Your task to perform on an android device: toggle improve location accuracy Image 0: 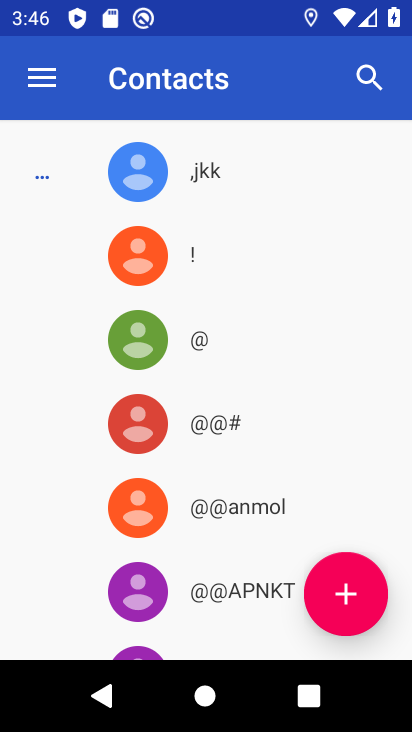
Step 0: press back button
Your task to perform on an android device: toggle improve location accuracy Image 1: 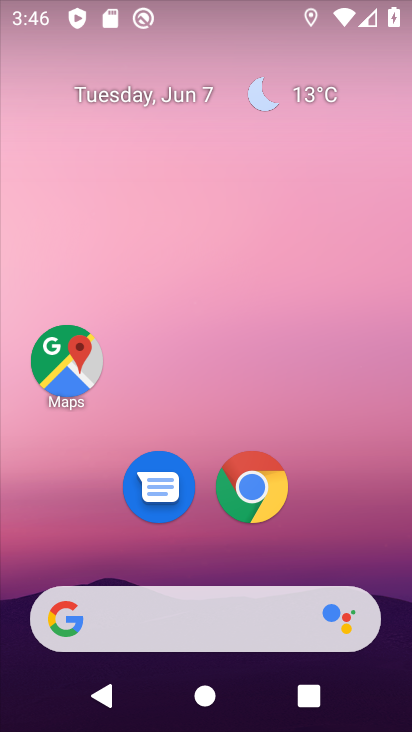
Step 1: drag from (223, 578) to (300, 88)
Your task to perform on an android device: toggle improve location accuracy Image 2: 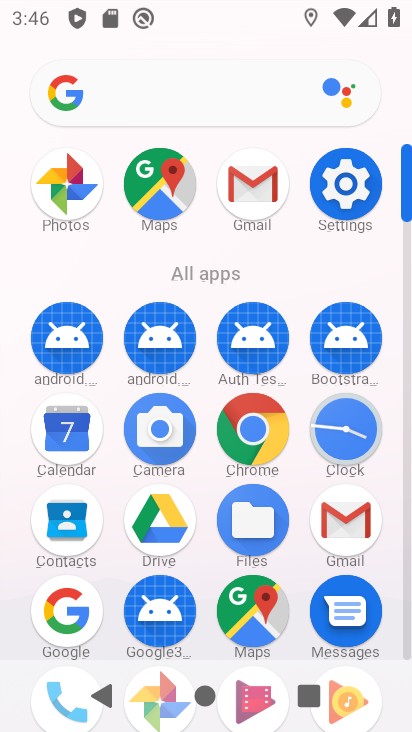
Step 2: click (340, 177)
Your task to perform on an android device: toggle improve location accuracy Image 3: 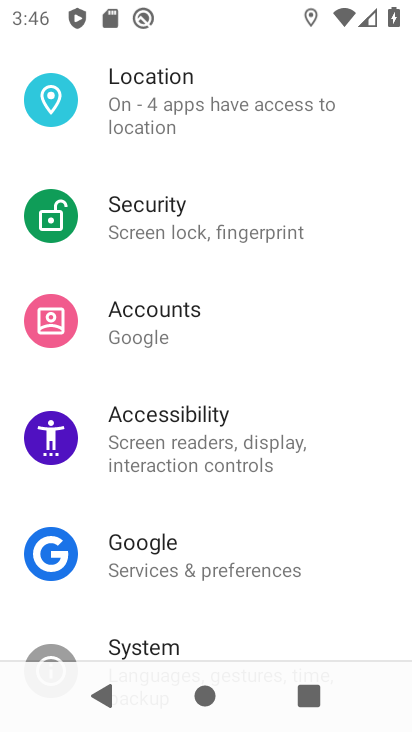
Step 3: click (149, 105)
Your task to perform on an android device: toggle improve location accuracy Image 4: 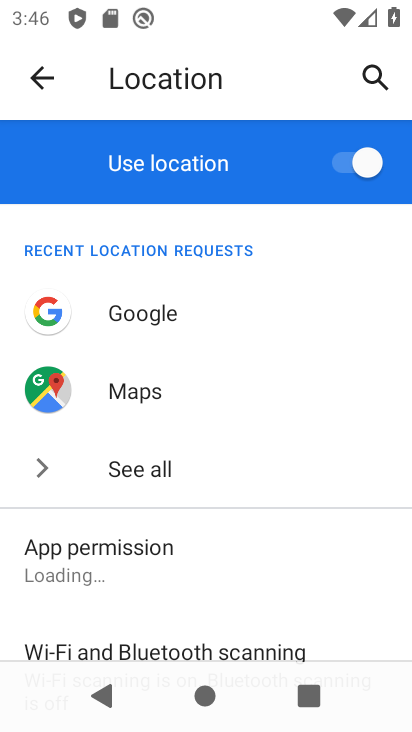
Step 4: drag from (156, 633) to (235, 138)
Your task to perform on an android device: toggle improve location accuracy Image 5: 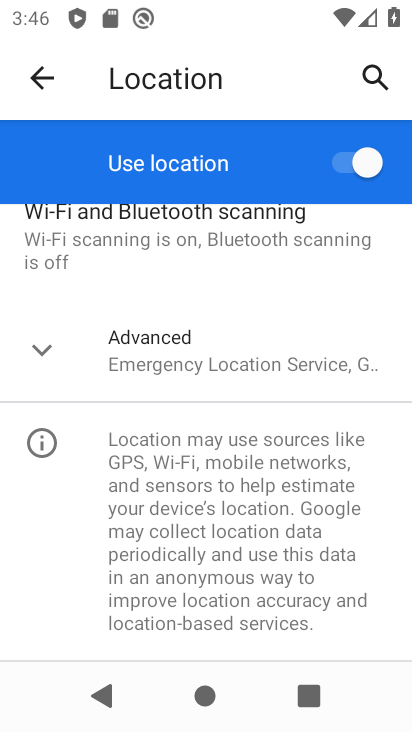
Step 5: click (177, 346)
Your task to perform on an android device: toggle improve location accuracy Image 6: 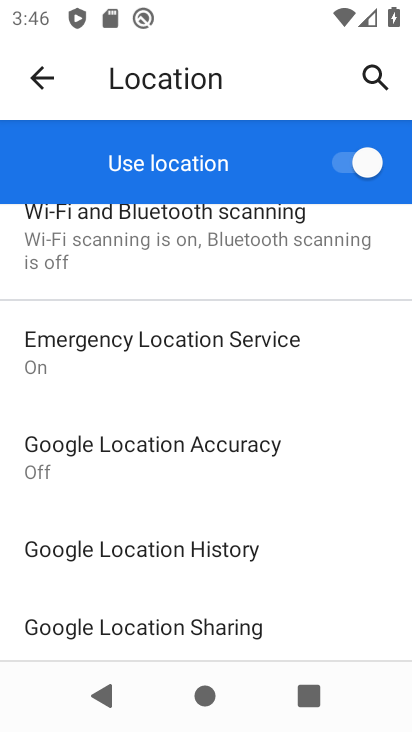
Step 6: click (88, 449)
Your task to perform on an android device: toggle improve location accuracy Image 7: 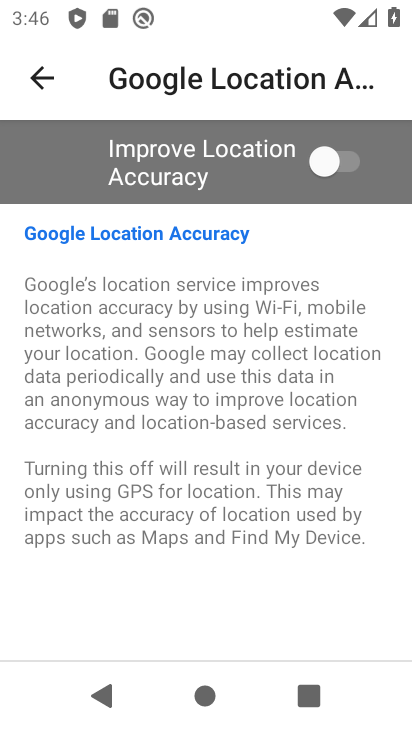
Step 7: click (341, 159)
Your task to perform on an android device: toggle improve location accuracy Image 8: 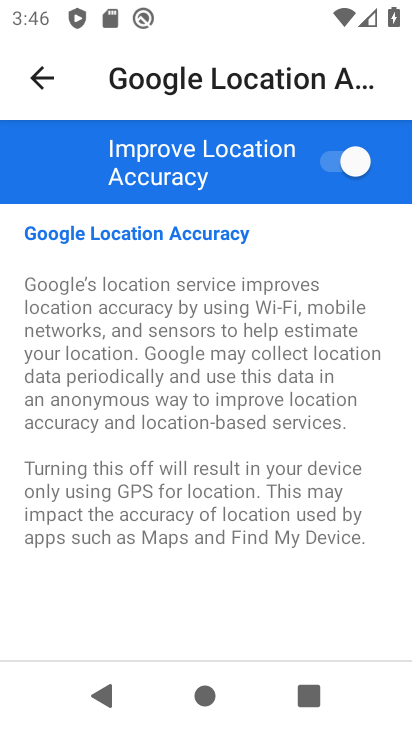
Step 8: task complete